Your task to perform on an android device: snooze an email in the gmail app Image 0: 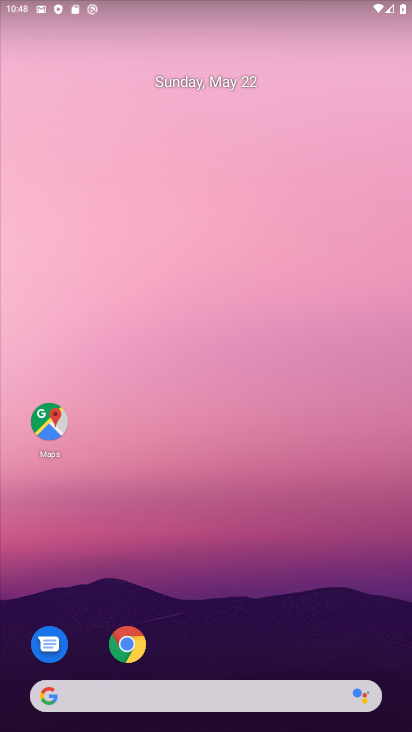
Step 0: press home button
Your task to perform on an android device: snooze an email in the gmail app Image 1: 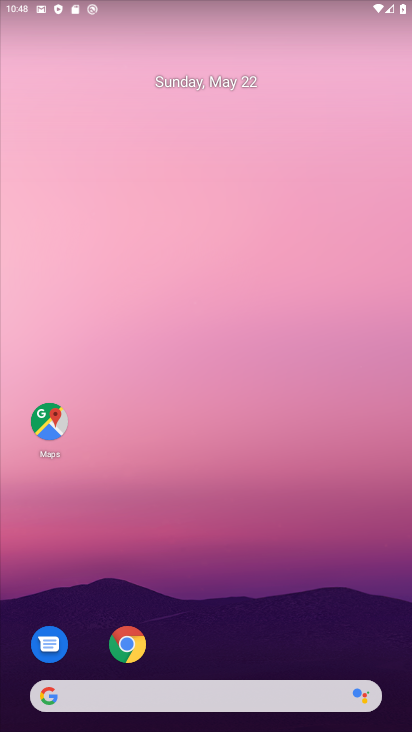
Step 1: drag from (231, 641) to (289, 9)
Your task to perform on an android device: snooze an email in the gmail app Image 2: 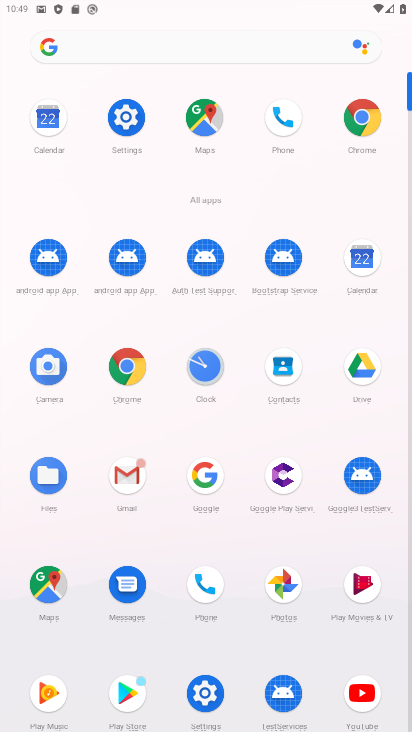
Step 2: click (131, 468)
Your task to perform on an android device: snooze an email in the gmail app Image 3: 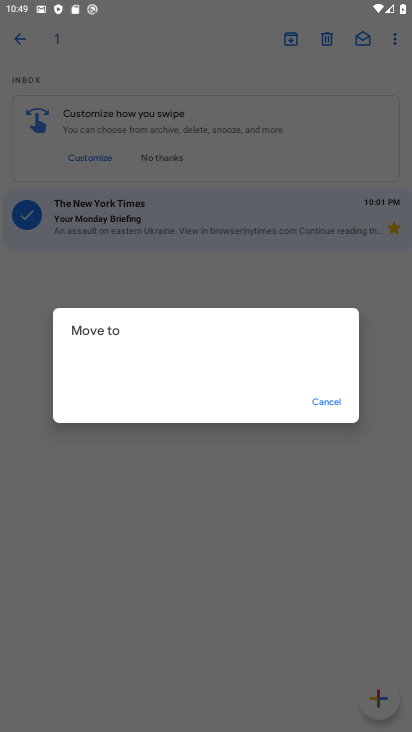
Step 3: press back button
Your task to perform on an android device: snooze an email in the gmail app Image 4: 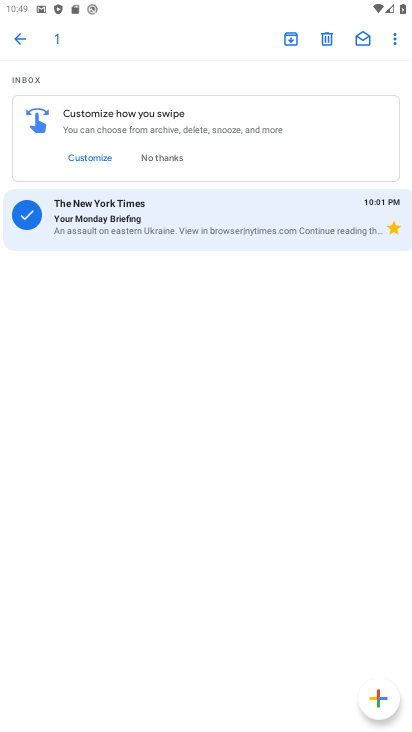
Step 4: click (17, 33)
Your task to perform on an android device: snooze an email in the gmail app Image 5: 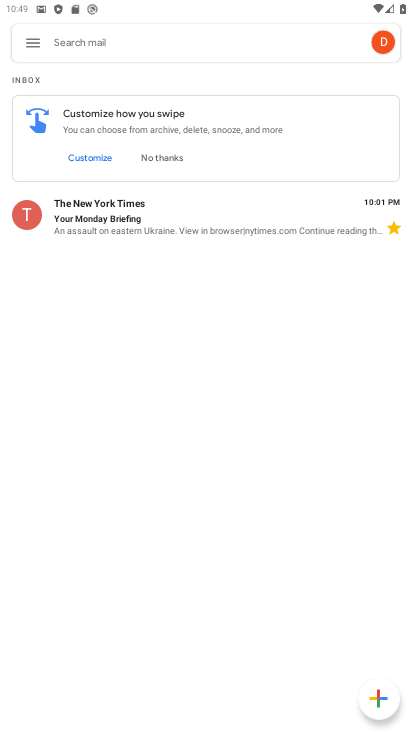
Step 5: click (32, 208)
Your task to perform on an android device: snooze an email in the gmail app Image 6: 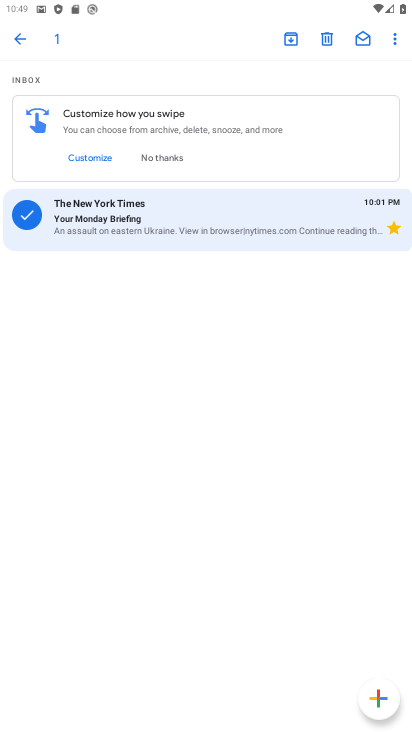
Step 6: click (392, 37)
Your task to perform on an android device: snooze an email in the gmail app Image 7: 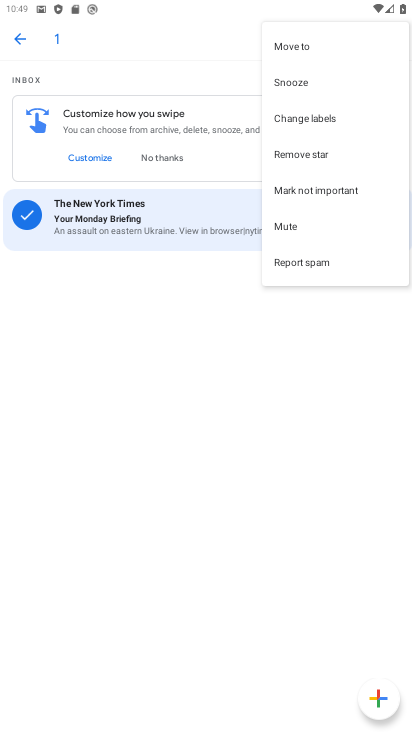
Step 7: click (293, 85)
Your task to perform on an android device: snooze an email in the gmail app Image 8: 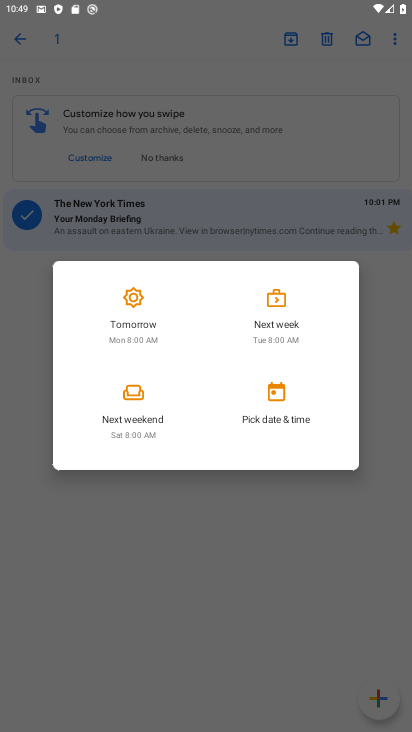
Step 8: click (282, 320)
Your task to perform on an android device: snooze an email in the gmail app Image 9: 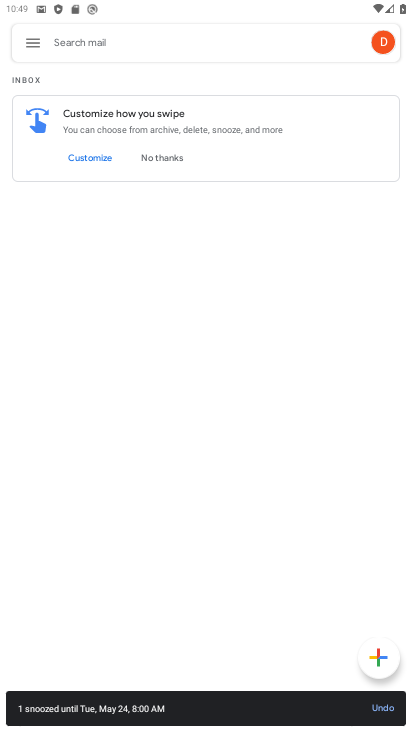
Step 9: task complete